Your task to perform on an android device: change the upload size in google photos Image 0: 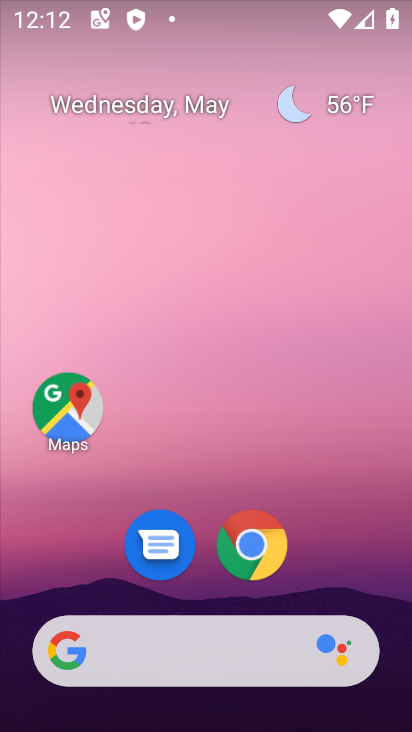
Step 0: drag from (355, 530) to (284, 14)
Your task to perform on an android device: change the upload size in google photos Image 1: 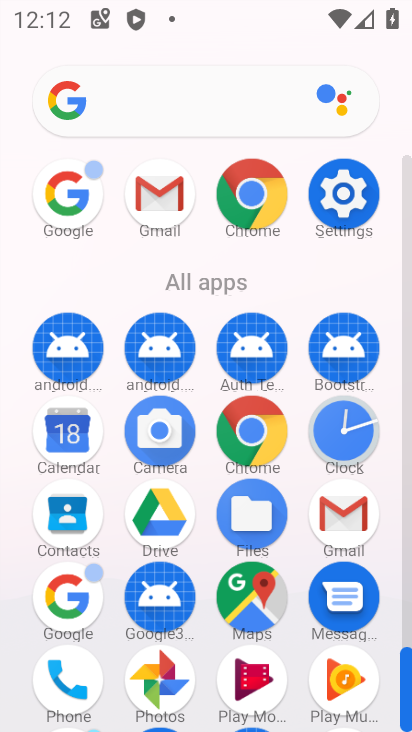
Step 1: drag from (203, 632) to (220, 378)
Your task to perform on an android device: change the upload size in google photos Image 2: 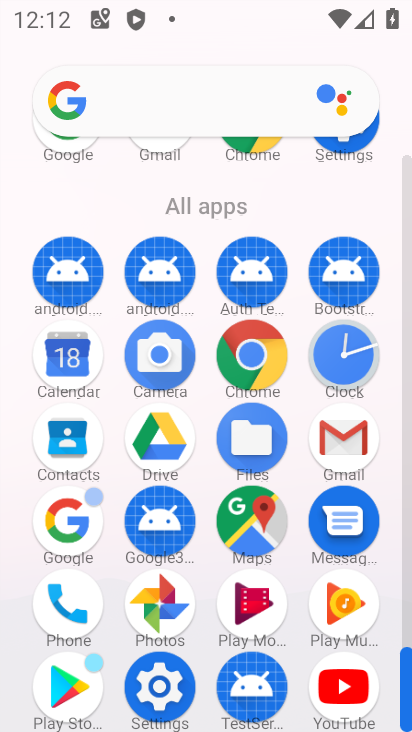
Step 2: click (158, 601)
Your task to perform on an android device: change the upload size in google photos Image 3: 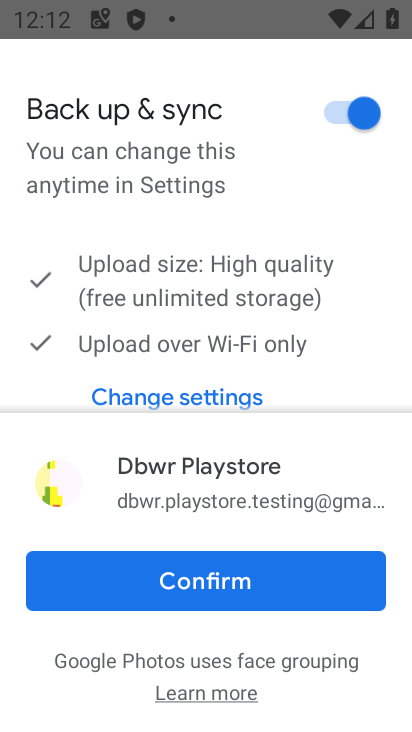
Step 3: click (229, 578)
Your task to perform on an android device: change the upload size in google photos Image 4: 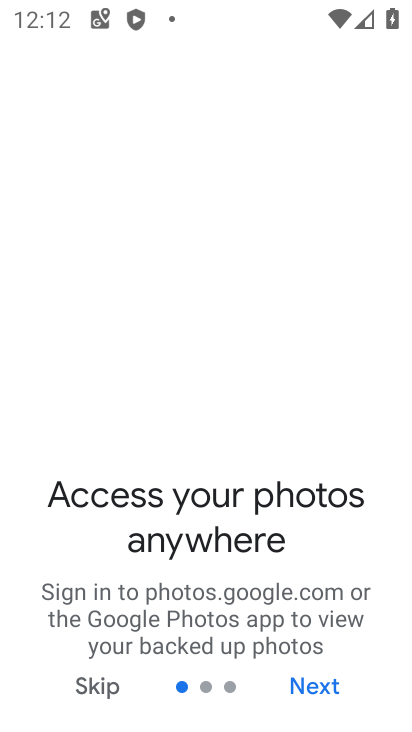
Step 4: click (328, 680)
Your task to perform on an android device: change the upload size in google photos Image 5: 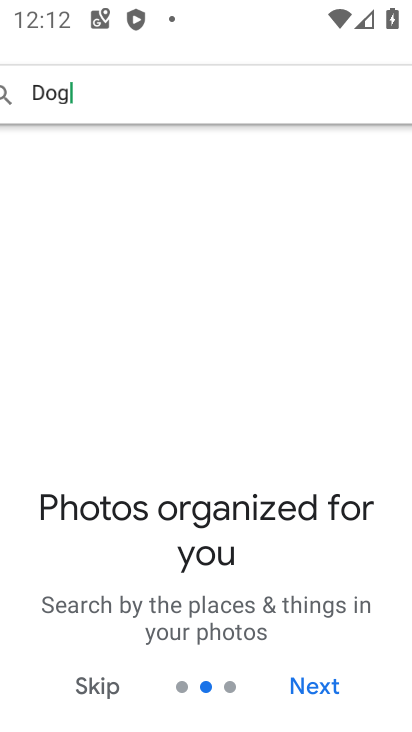
Step 5: click (328, 680)
Your task to perform on an android device: change the upload size in google photos Image 6: 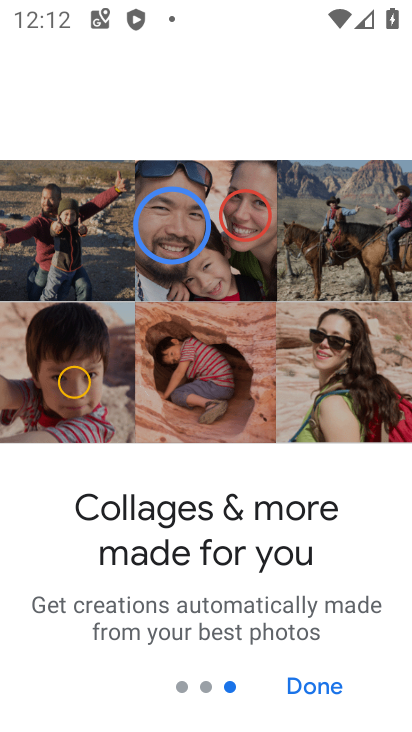
Step 6: click (328, 680)
Your task to perform on an android device: change the upload size in google photos Image 7: 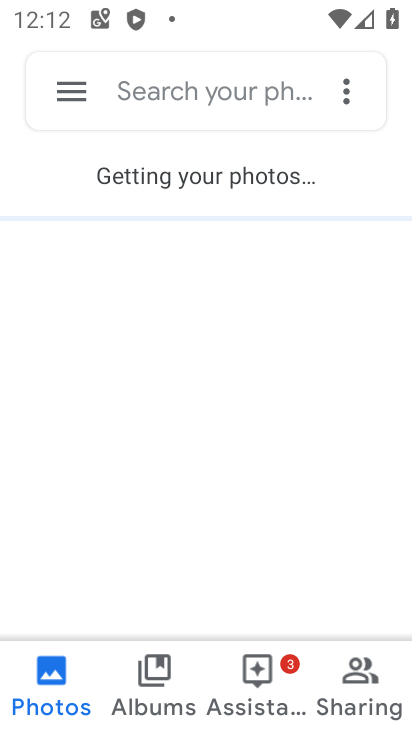
Step 7: click (65, 99)
Your task to perform on an android device: change the upload size in google photos Image 8: 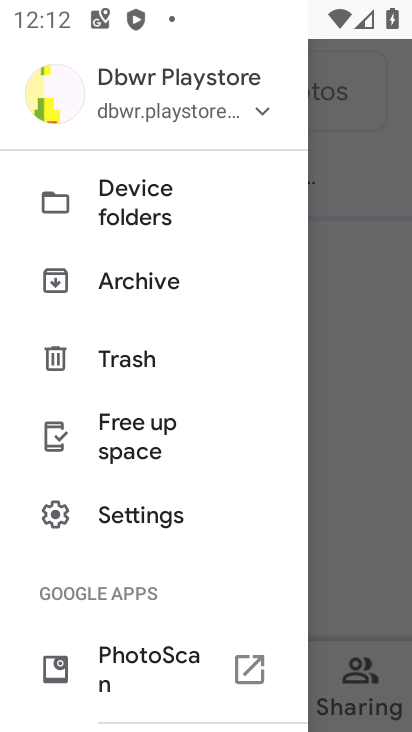
Step 8: click (142, 510)
Your task to perform on an android device: change the upload size in google photos Image 9: 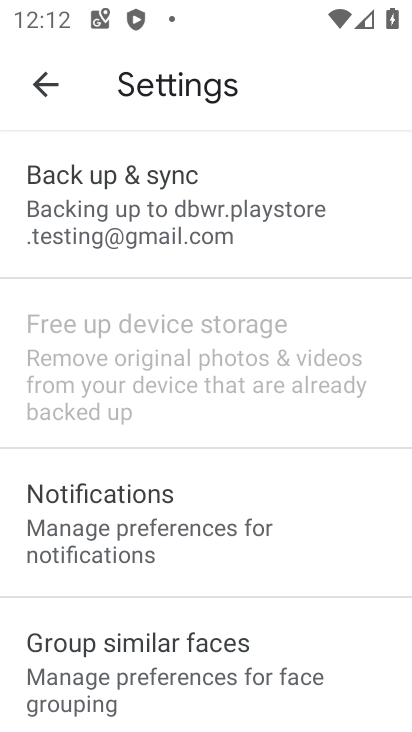
Step 9: click (172, 193)
Your task to perform on an android device: change the upload size in google photos Image 10: 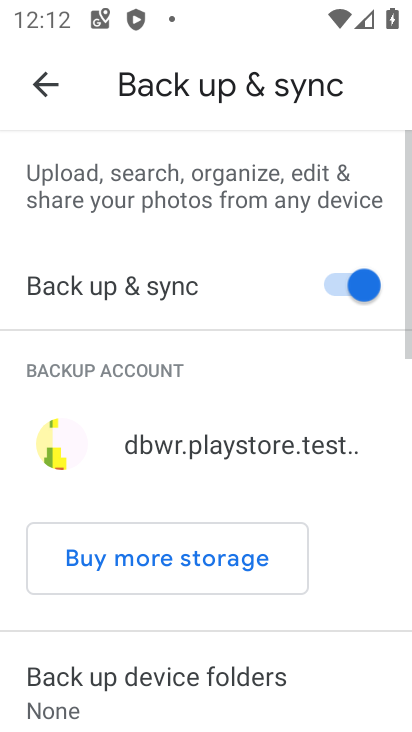
Step 10: drag from (142, 610) to (218, 326)
Your task to perform on an android device: change the upload size in google photos Image 11: 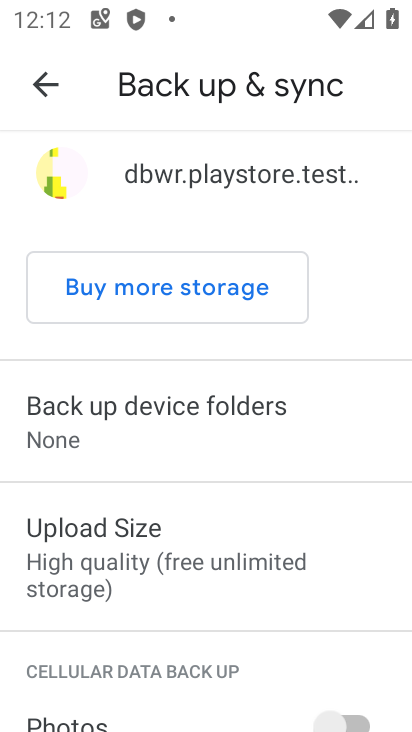
Step 11: click (143, 533)
Your task to perform on an android device: change the upload size in google photos Image 12: 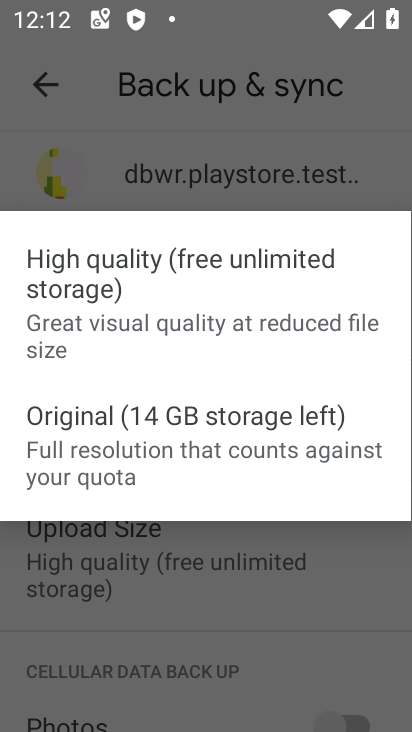
Step 12: click (119, 429)
Your task to perform on an android device: change the upload size in google photos Image 13: 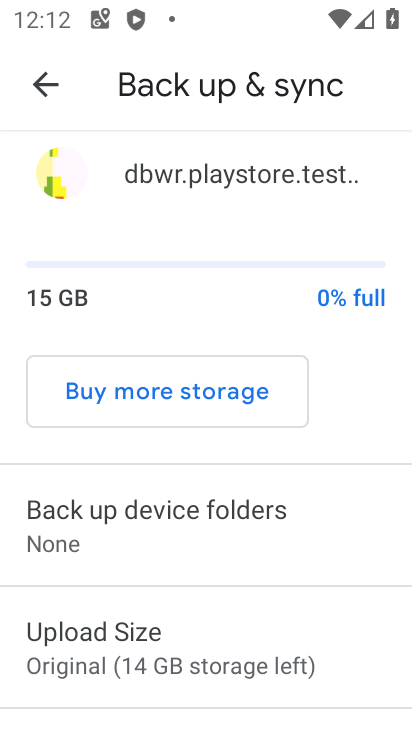
Step 13: task complete